Your task to perform on an android device: Open the phone app and click the voicemail tab. Image 0: 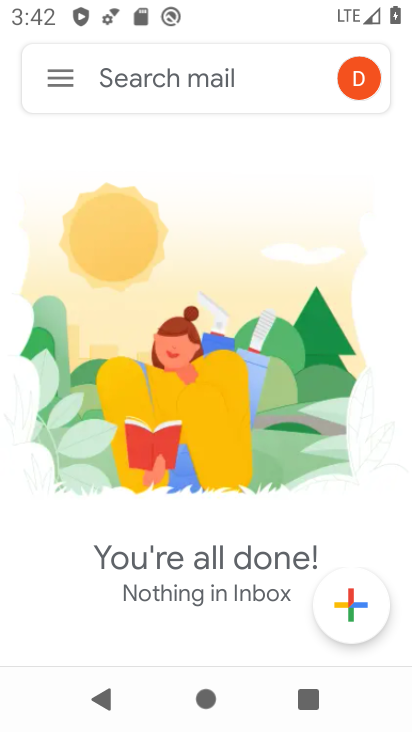
Step 0: press home button
Your task to perform on an android device: Open the phone app and click the voicemail tab. Image 1: 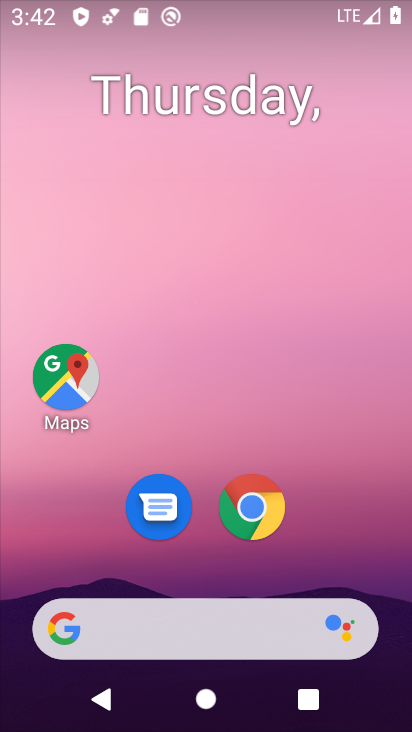
Step 1: drag from (330, 523) to (343, 193)
Your task to perform on an android device: Open the phone app and click the voicemail tab. Image 2: 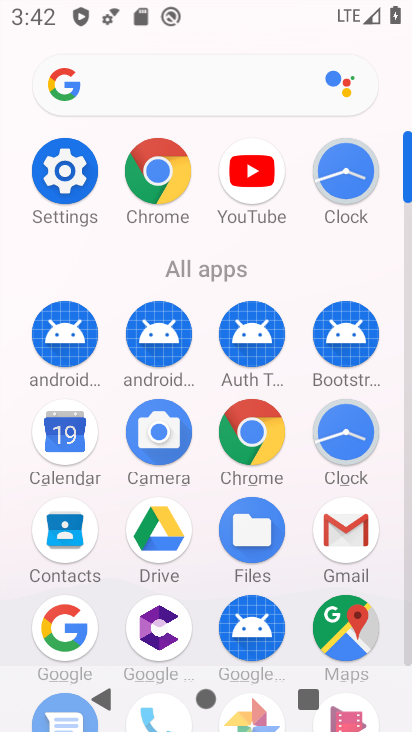
Step 2: click (411, 627)
Your task to perform on an android device: Open the phone app and click the voicemail tab. Image 3: 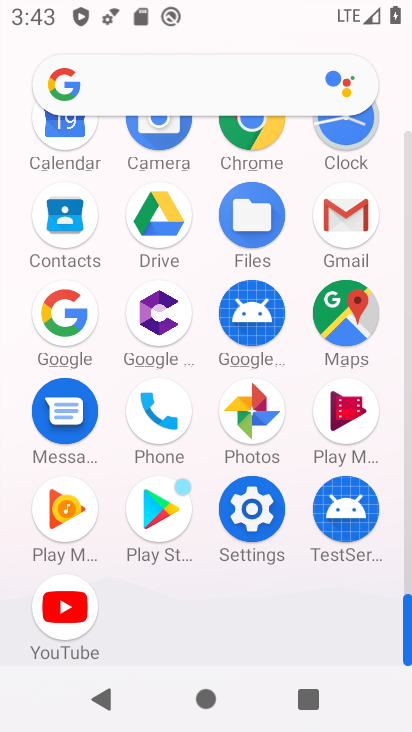
Step 3: click (145, 403)
Your task to perform on an android device: Open the phone app and click the voicemail tab. Image 4: 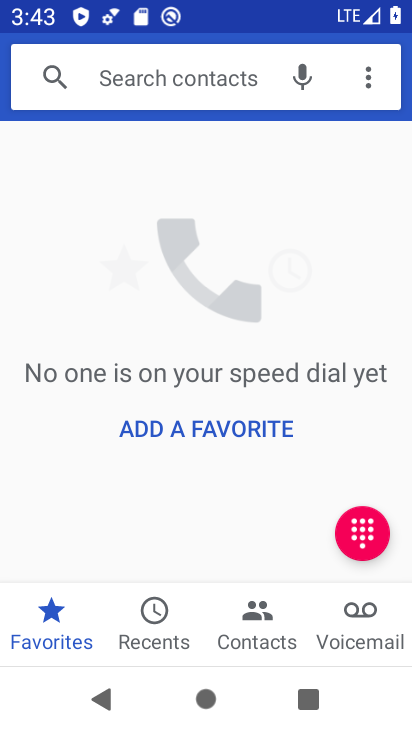
Step 4: click (377, 610)
Your task to perform on an android device: Open the phone app and click the voicemail tab. Image 5: 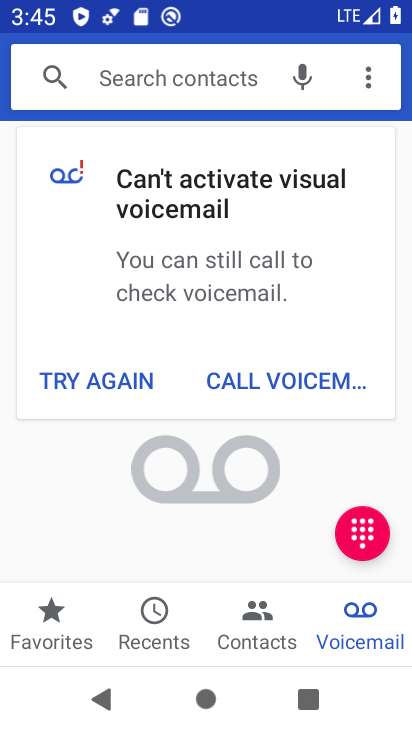
Step 5: task complete